Your task to perform on an android device: stop showing notifications on the lock screen Image 0: 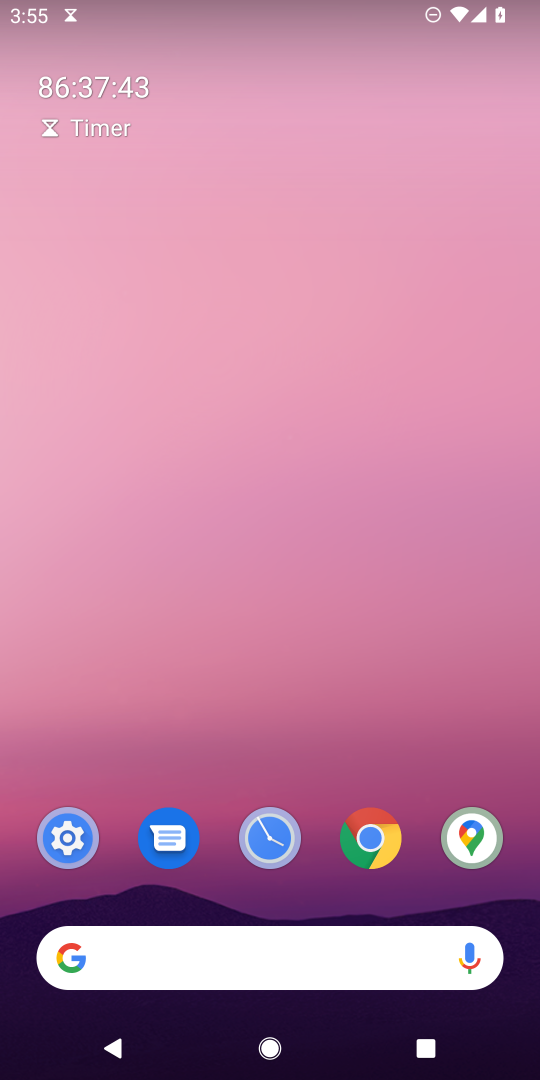
Step 0: click (70, 845)
Your task to perform on an android device: stop showing notifications on the lock screen Image 1: 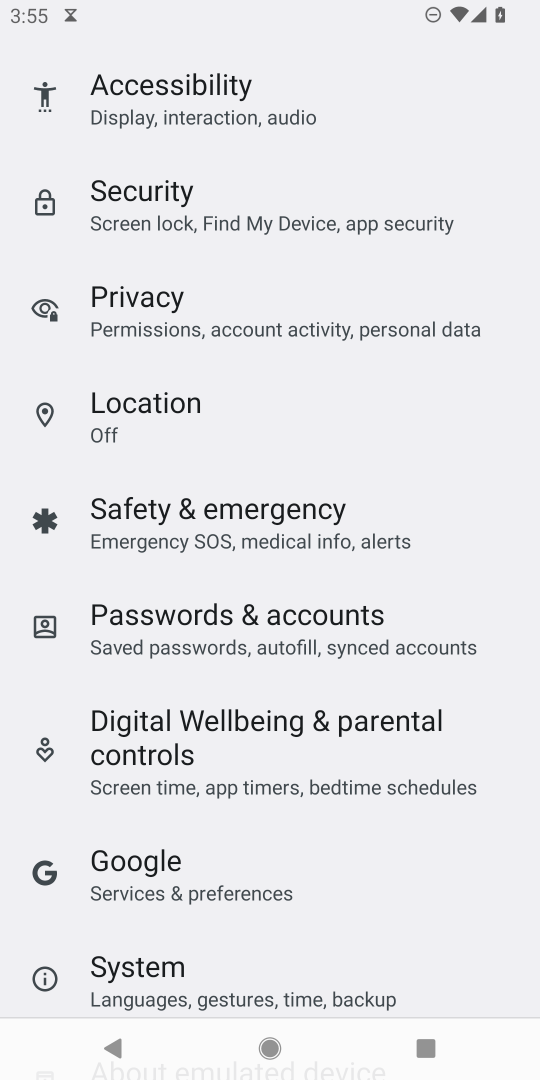
Step 1: drag from (268, 317) to (229, 967)
Your task to perform on an android device: stop showing notifications on the lock screen Image 2: 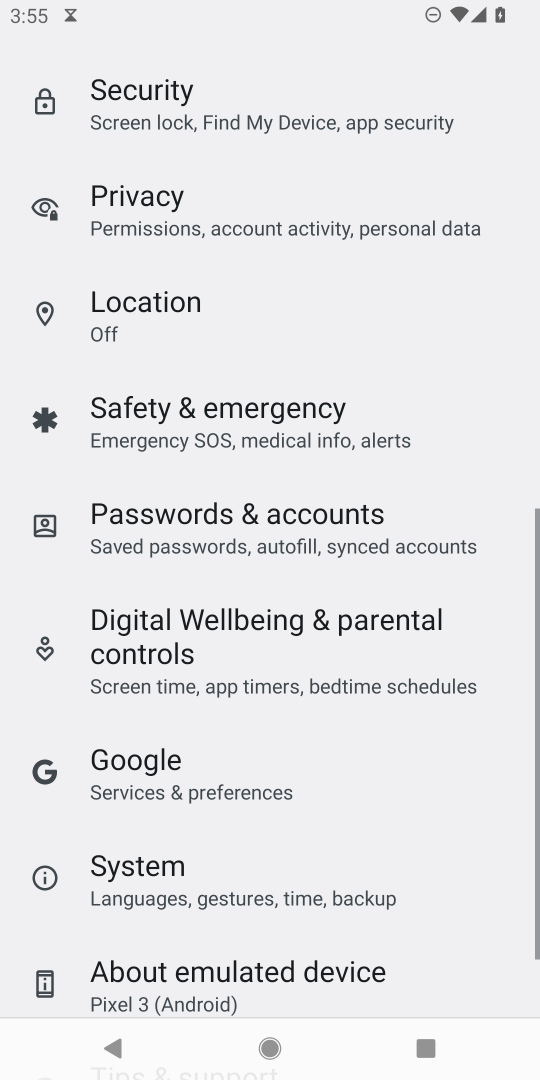
Step 2: drag from (342, 258) to (428, 604)
Your task to perform on an android device: stop showing notifications on the lock screen Image 3: 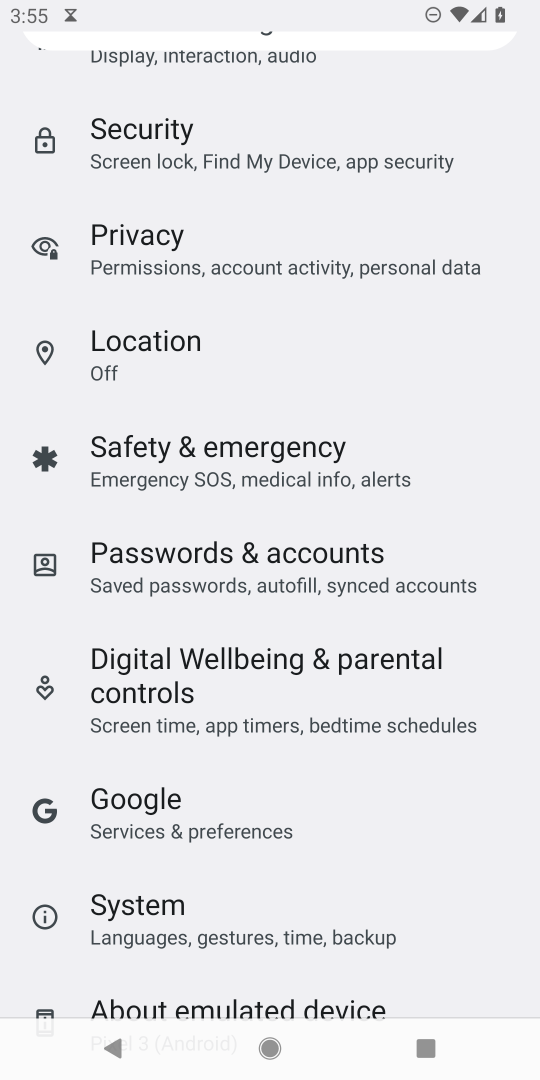
Step 3: drag from (360, 146) to (394, 655)
Your task to perform on an android device: stop showing notifications on the lock screen Image 4: 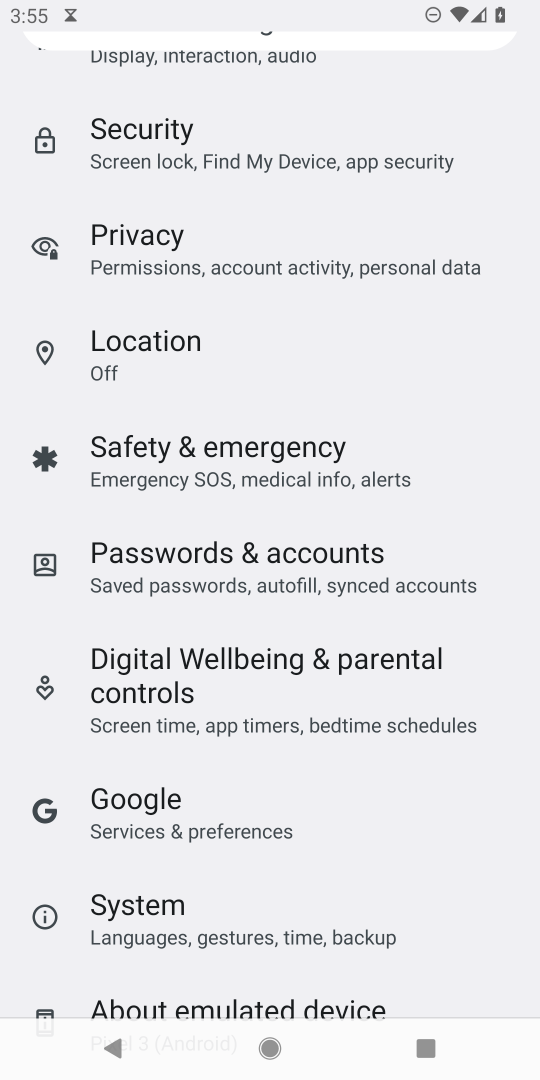
Step 4: drag from (381, 254) to (460, 731)
Your task to perform on an android device: stop showing notifications on the lock screen Image 5: 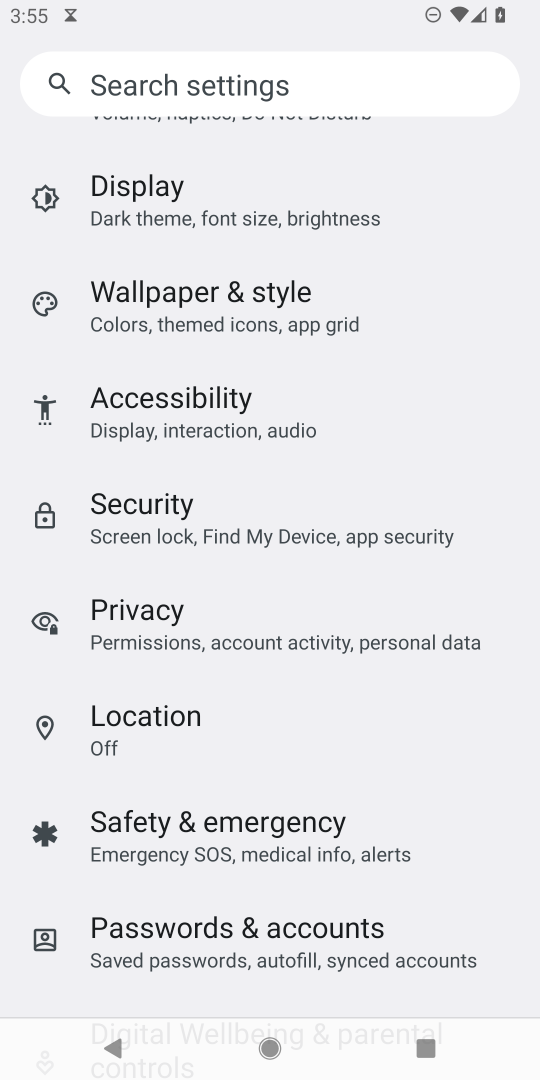
Step 5: drag from (366, 402) to (430, 1018)
Your task to perform on an android device: stop showing notifications on the lock screen Image 6: 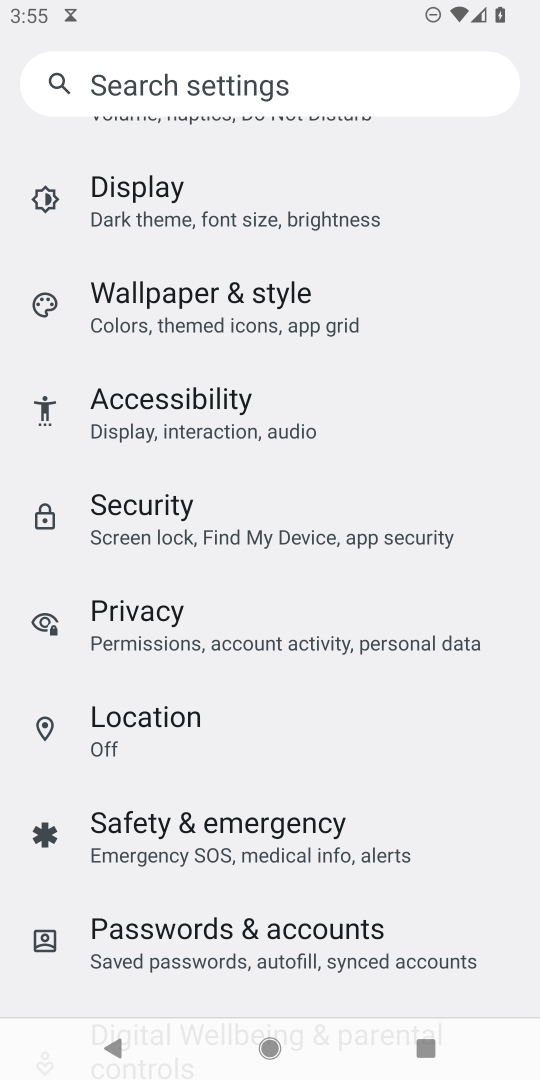
Step 6: drag from (306, 155) to (375, 754)
Your task to perform on an android device: stop showing notifications on the lock screen Image 7: 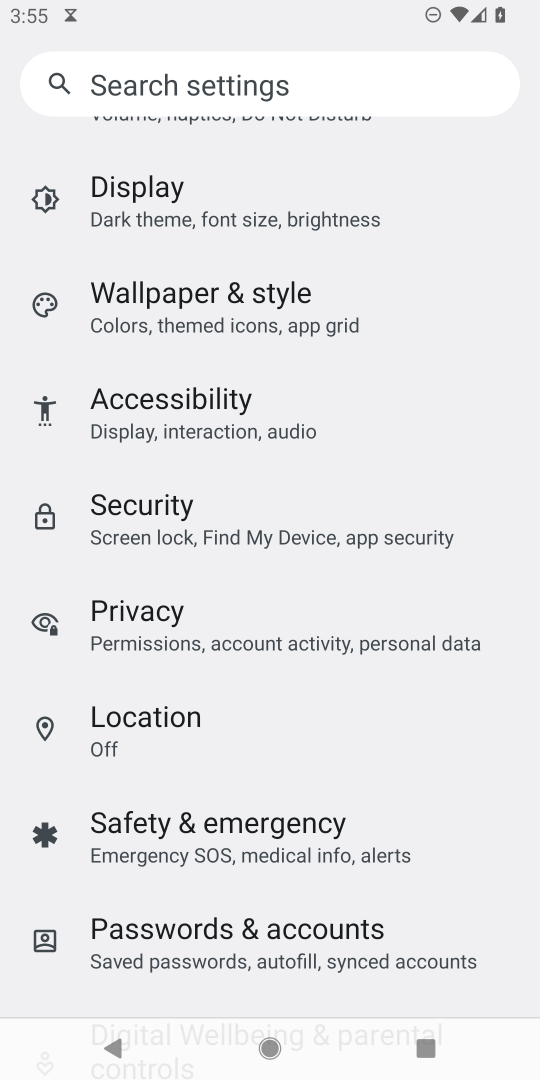
Step 7: drag from (401, 233) to (468, 692)
Your task to perform on an android device: stop showing notifications on the lock screen Image 8: 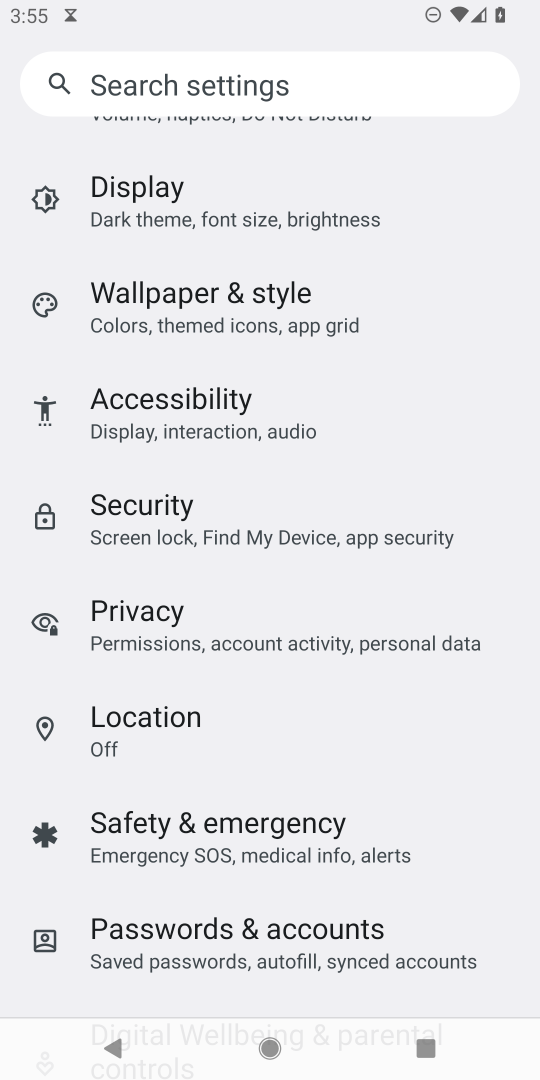
Step 8: drag from (501, 307) to (529, 648)
Your task to perform on an android device: stop showing notifications on the lock screen Image 9: 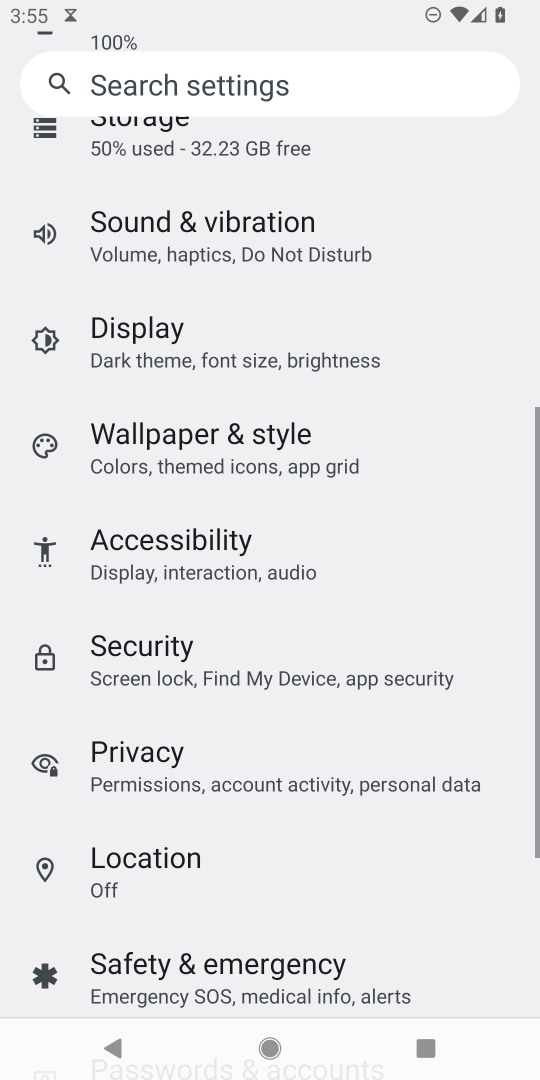
Step 9: drag from (343, 201) to (477, 1039)
Your task to perform on an android device: stop showing notifications on the lock screen Image 10: 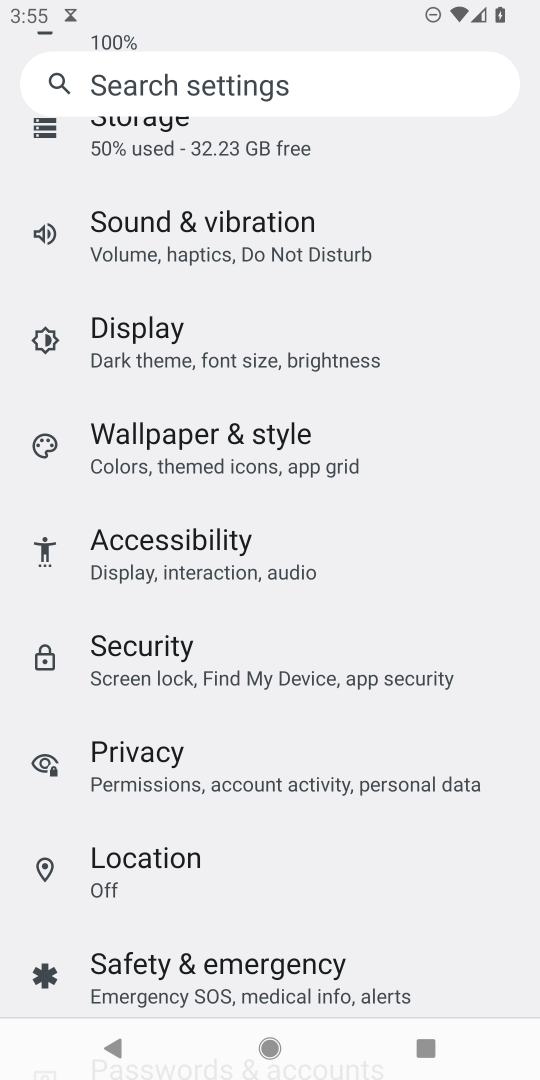
Step 10: drag from (432, 158) to (538, 927)
Your task to perform on an android device: stop showing notifications on the lock screen Image 11: 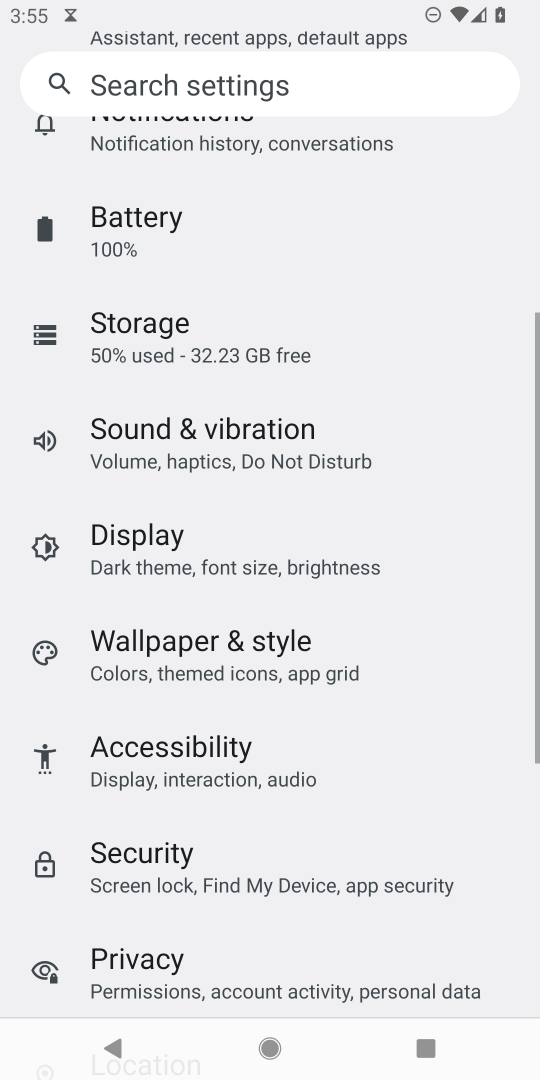
Step 11: drag from (321, 130) to (444, 811)
Your task to perform on an android device: stop showing notifications on the lock screen Image 12: 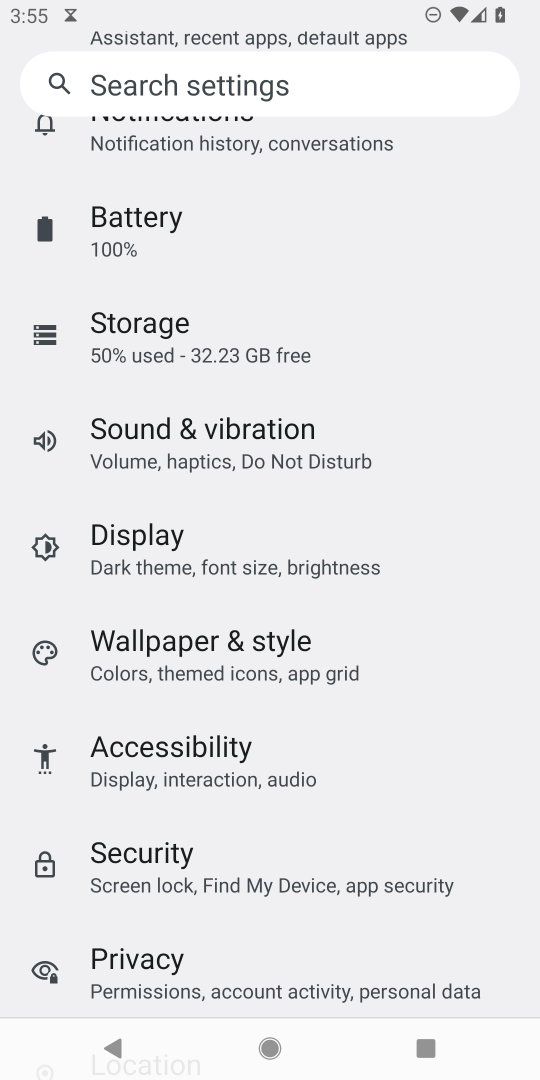
Step 12: click (362, 152)
Your task to perform on an android device: stop showing notifications on the lock screen Image 13: 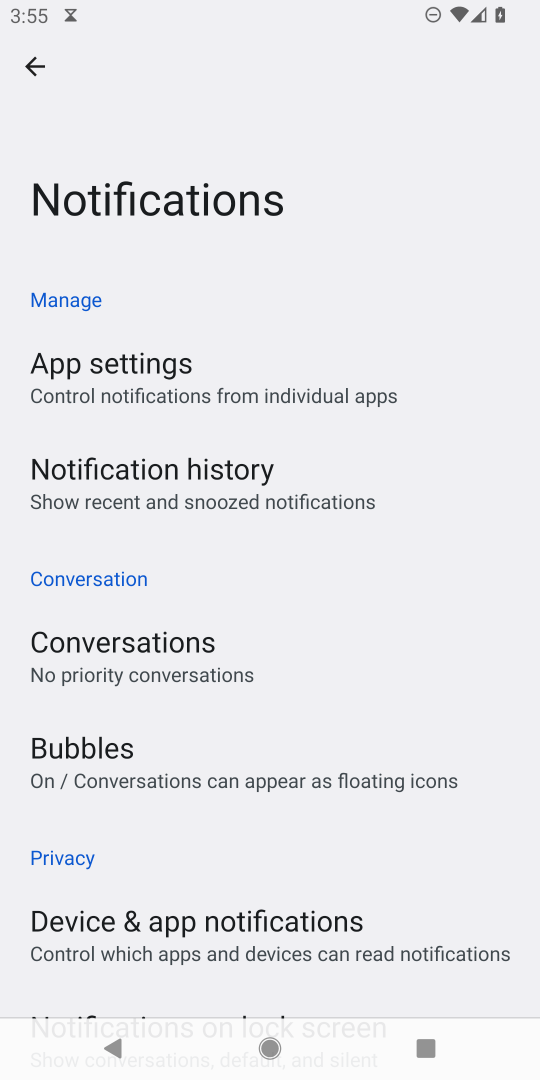
Step 13: drag from (291, 800) to (291, 253)
Your task to perform on an android device: stop showing notifications on the lock screen Image 14: 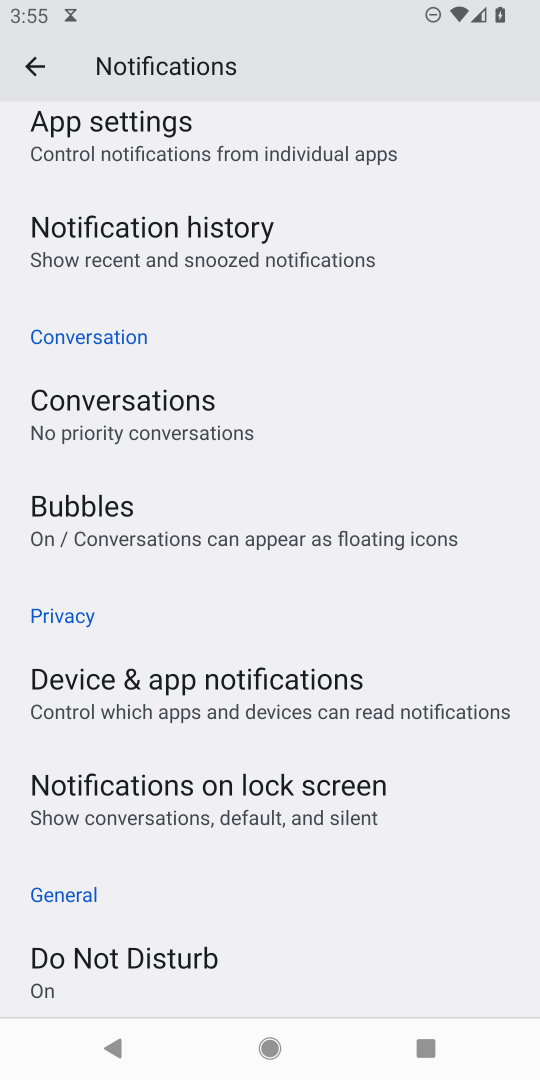
Step 14: click (242, 815)
Your task to perform on an android device: stop showing notifications on the lock screen Image 15: 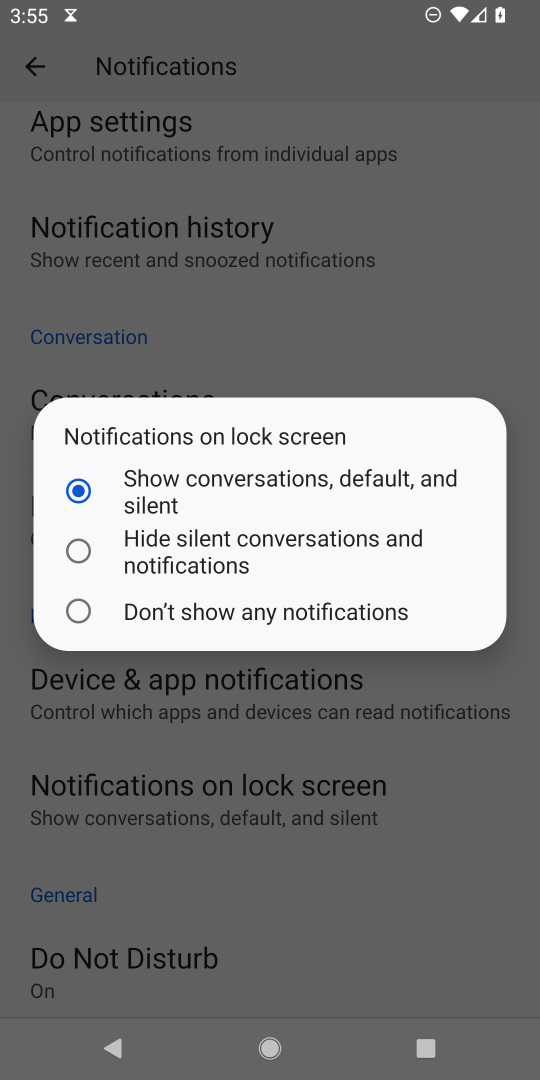
Step 15: click (216, 605)
Your task to perform on an android device: stop showing notifications on the lock screen Image 16: 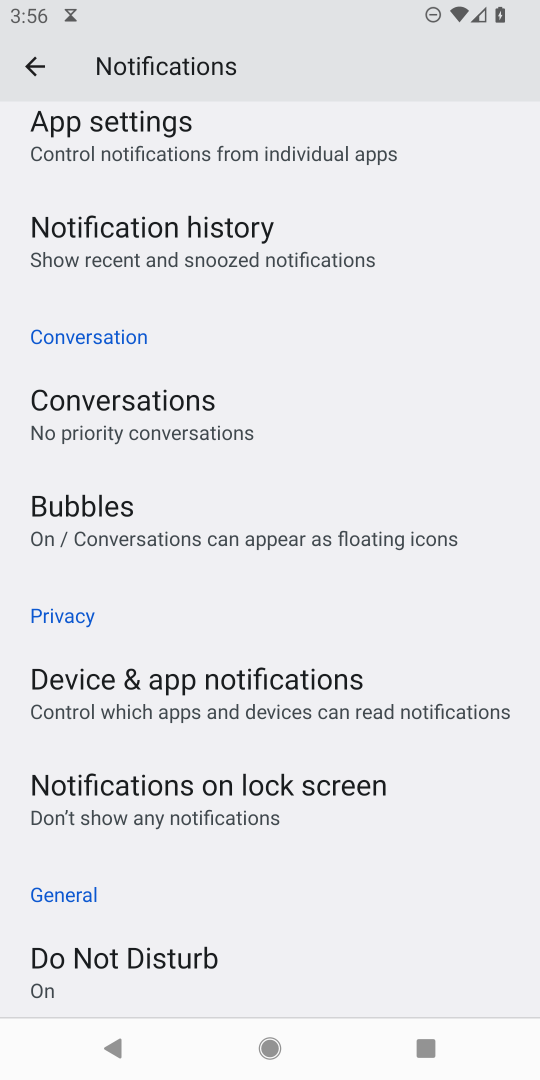
Step 16: task complete